Your task to perform on an android device: turn vacation reply on in the gmail app Image 0: 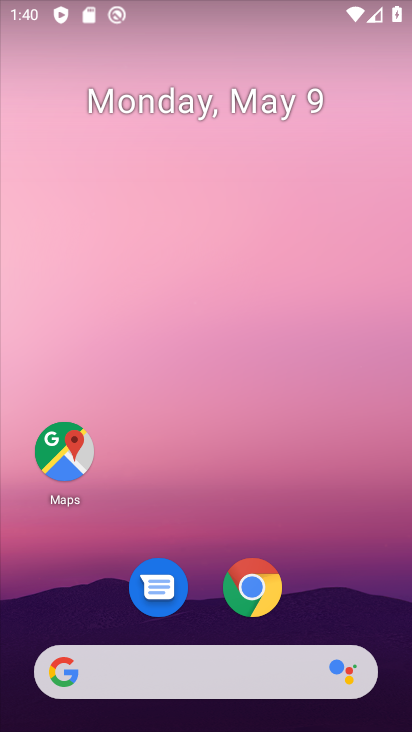
Step 0: drag from (191, 466) to (239, 76)
Your task to perform on an android device: turn vacation reply on in the gmail app Image 1: 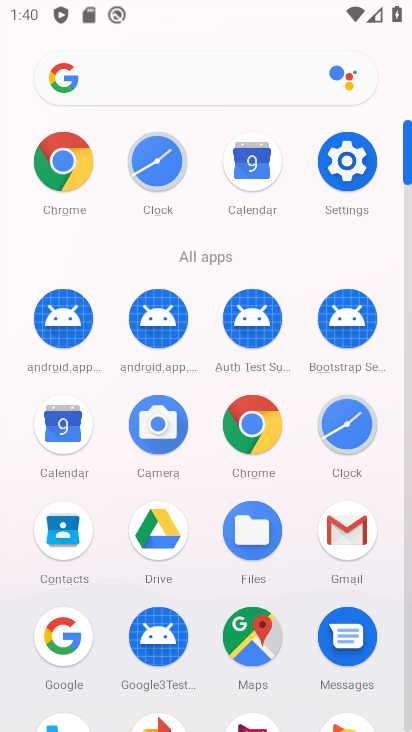
Step 1: click (360, 573)
Your task to perform on an android device: turn vacation reply on in the gmail app Image 2: 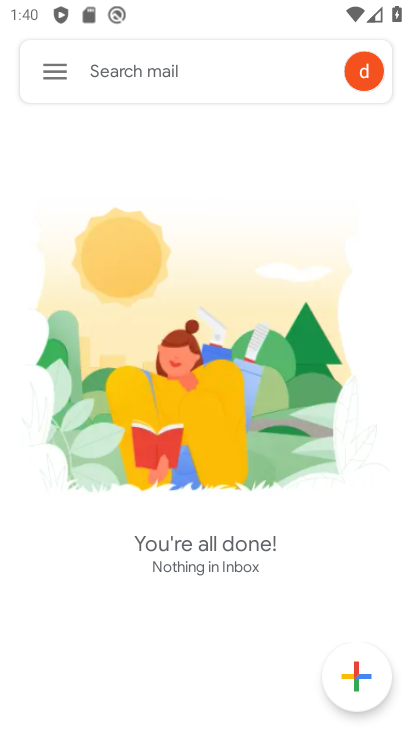
Step 2: click (52, 63)
Your task to perform on an android device: turn vacation reply on in the gmail app Image 3: 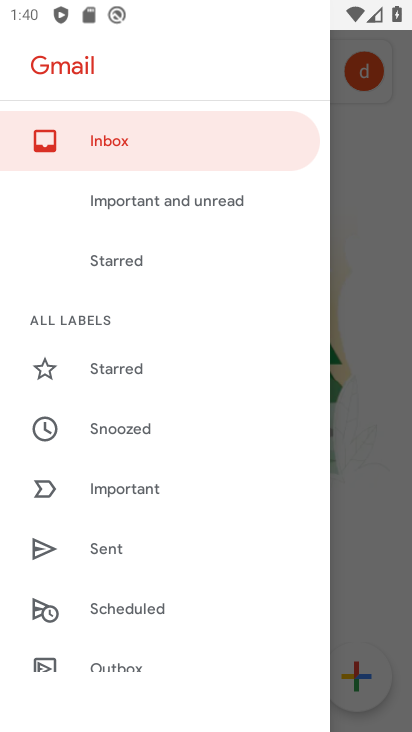
Step 3: drag from (101, 430) to (151, 24)
Your task to perform on an android device: turn vacation reply on in the gmail app Image 4: 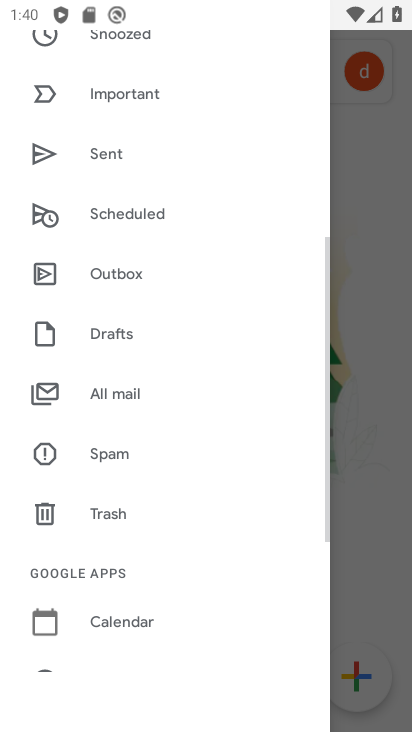
Step 4: drag from (177, 64) to (244, 47)
Your task to perform on an android device: turn vacation reply on in the gmail app Image 5: 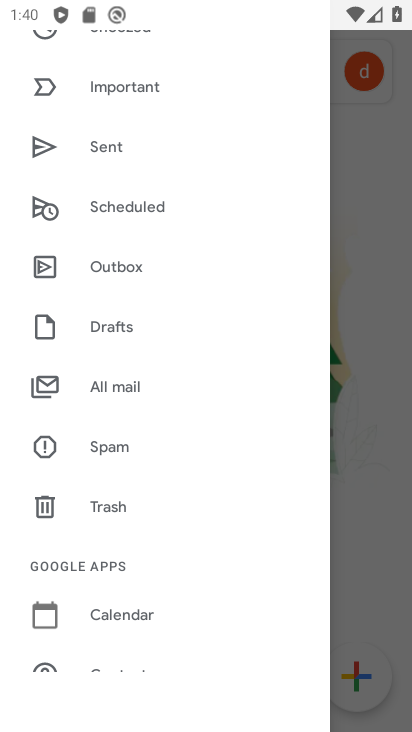
Step 5: drag from (102, 587) to (163, 175)
Your task to perform on an android device: turn vacation reply on in the gmail app Image 6: 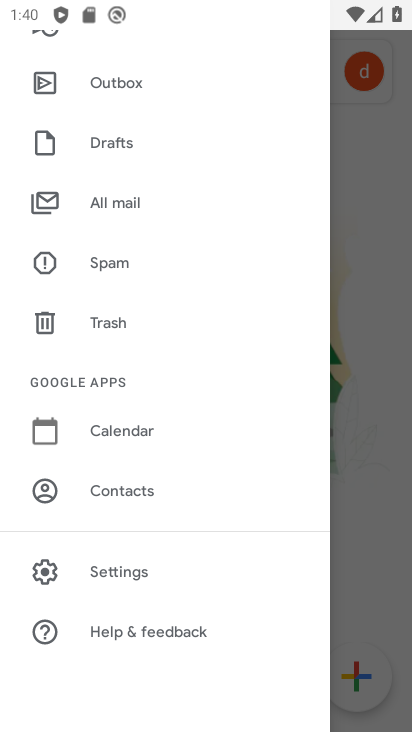
Step 6: click (143, 564)
Your task to perform on an android device: turn vacation reply on in the gmail app Image 7: 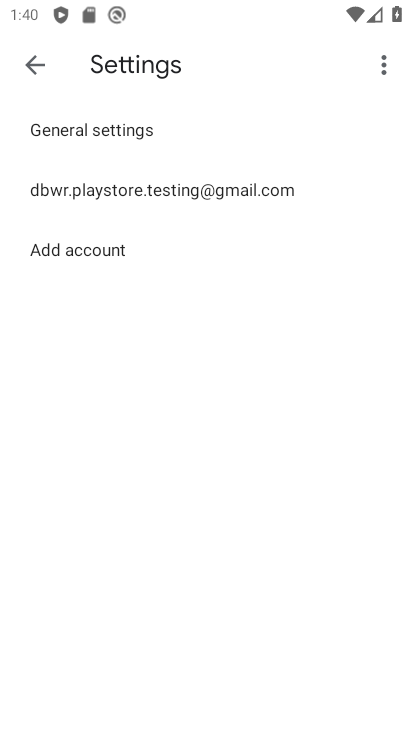
Step 7: click (205, 188)
Your task to perform on an android device: turn vacation reply on in the gmail app Image 8: 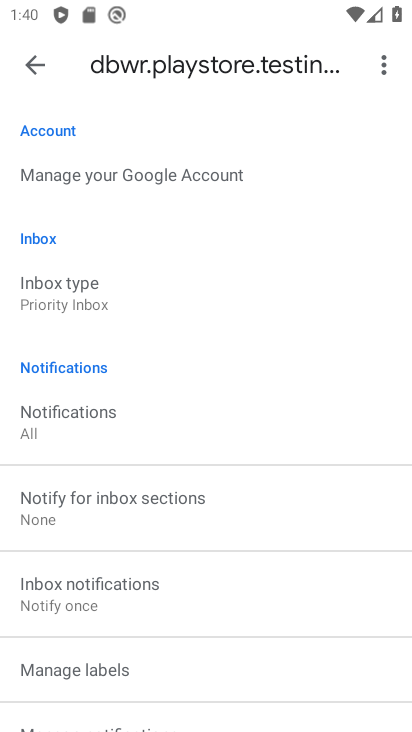
Step 8: drag from (149, 654) to (222, 163)
Your task to perform on an android device: turn vacation reply on in the gmail app Image 9: 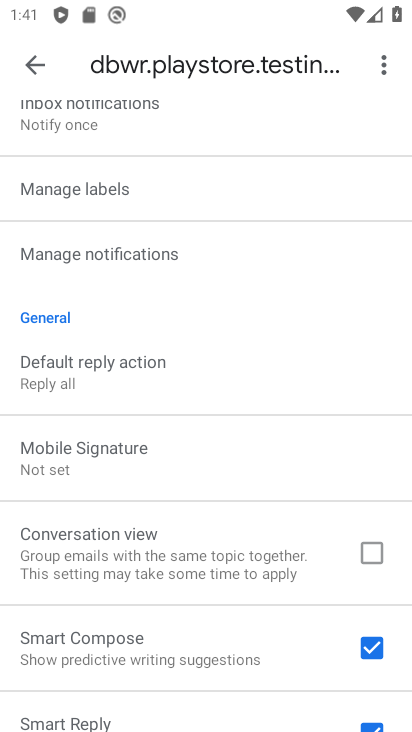
Step 9: drag from (144, 586) to (196, 371)
Your task to perform on an android device: turn vacation reply on in the gmail app Image 10: 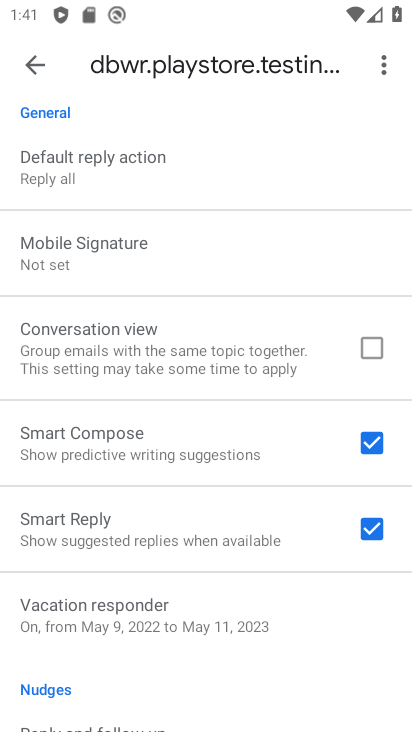
Step 10: click (163, 601)
Your task to perform on an android device: turn vacation reply on in the gmail app Image 11: 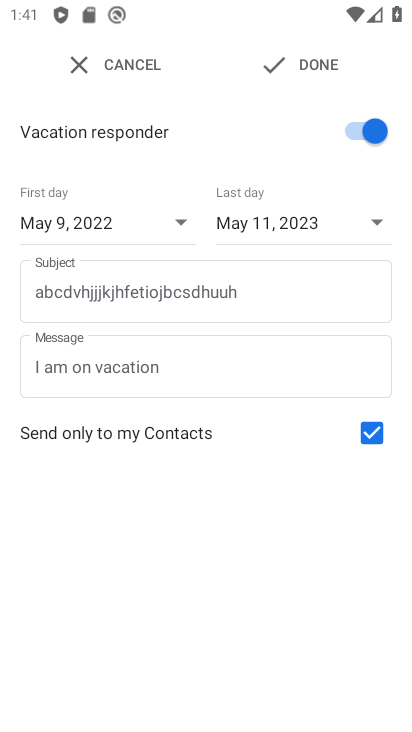
Step 11: task complete